Your task to perform on an android device: Is it going to rain this weekend? Image 0: 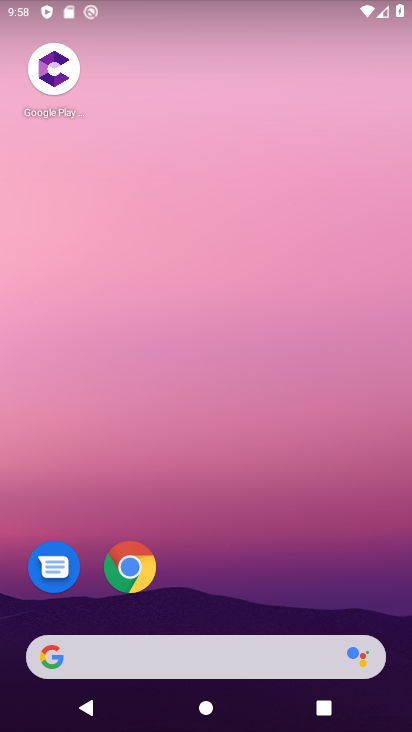
Step 0: drag from (333, 526) to (305, 126)
Your task to perform on an android device: Is it going to rain this weekend? Image 1: 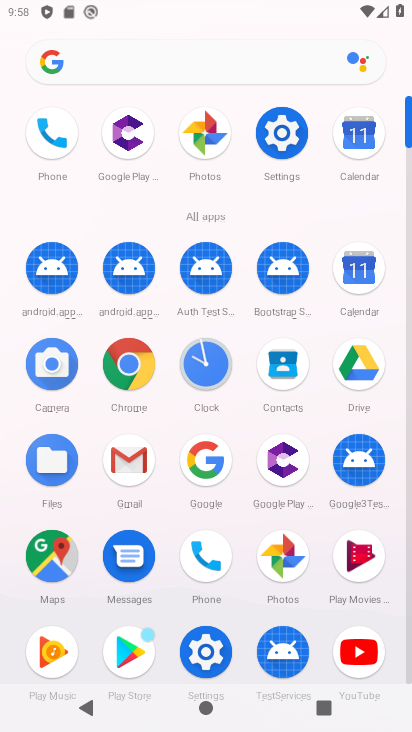
Step 1: press home button
Your task to perform on an android device: Is it going to rain this weekend? Image 2: 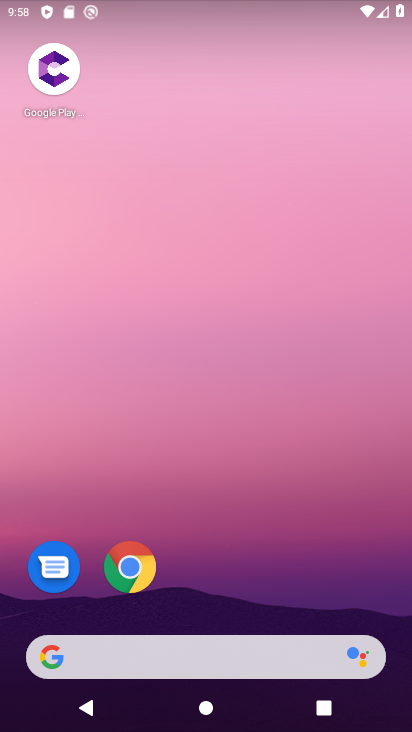
Step 2: drag from (234, 538) to (233, 376)
Your task to perform on an android device: Is it going to rain this weekend? Image 3: 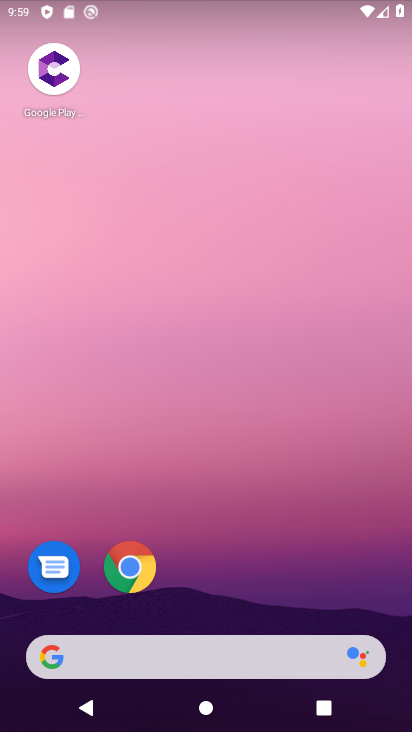
Step 3: drag from (221, 579) to (242, 152)
Your task to perform on an android device: Is it going to rain this weekend? Image 4: 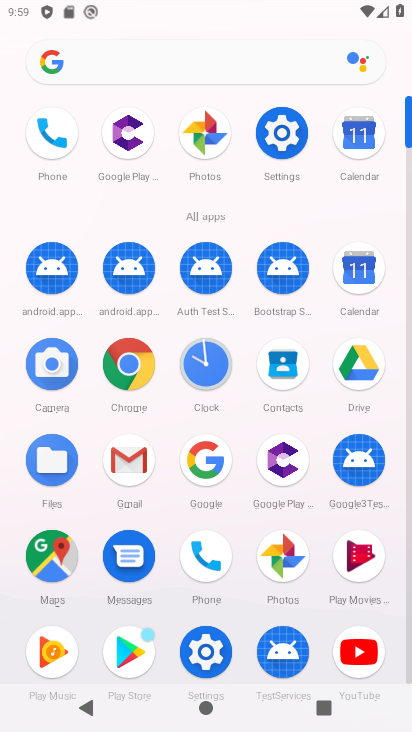
Step 4: click (147, 367)
Your task to perform on an android device: Is it going to rain this weekend? Image 5: 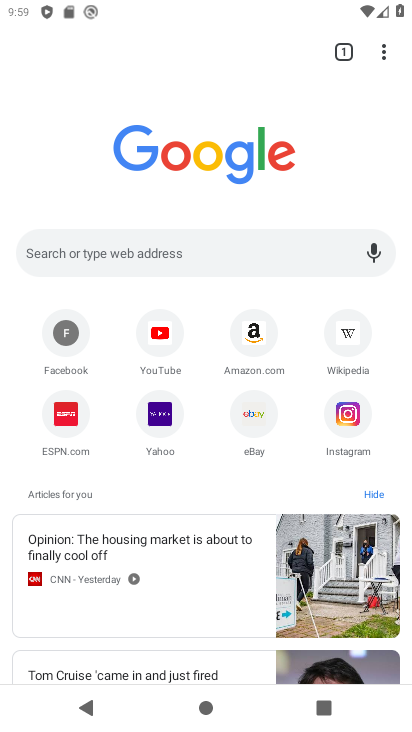
Step 5: click (121, 258)
Your task to perform on an android device: Is it going to rain this weekend? Image 6: 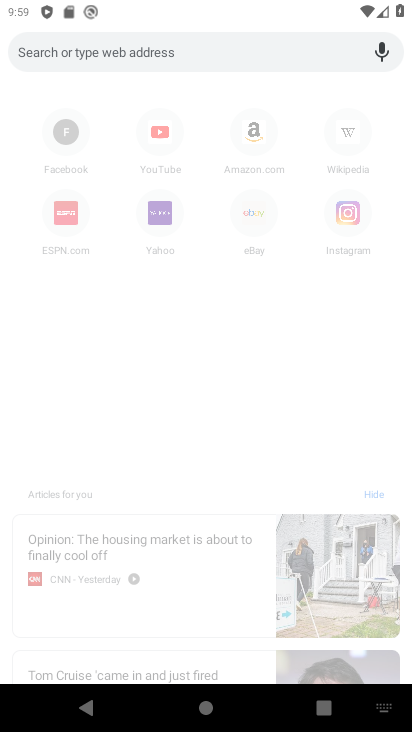
Step 6: type "is it going to rain this weekend"
Your task to perform on an android device: Is it going to rain this weekend? Image 7: 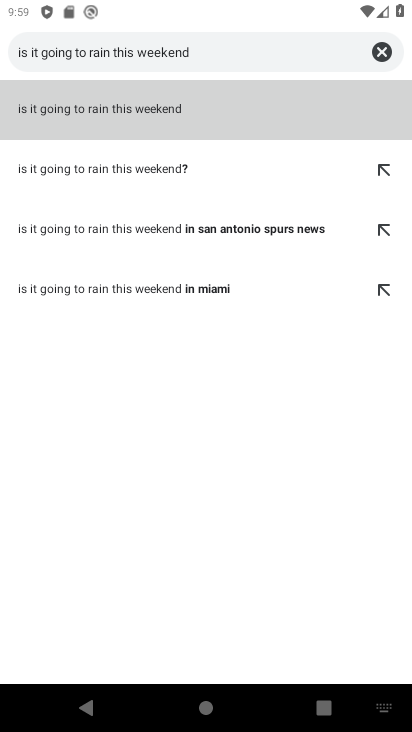
Step 7: click (155, 99)
Your task to perform on an android device: Is it going to rain this weekend? Image 8: 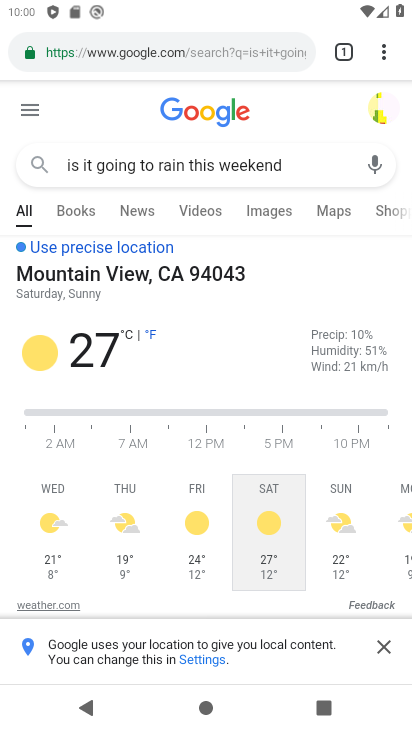
Step 8: task complete